Your task to perform on an android device: Go to battery settings Image 0: 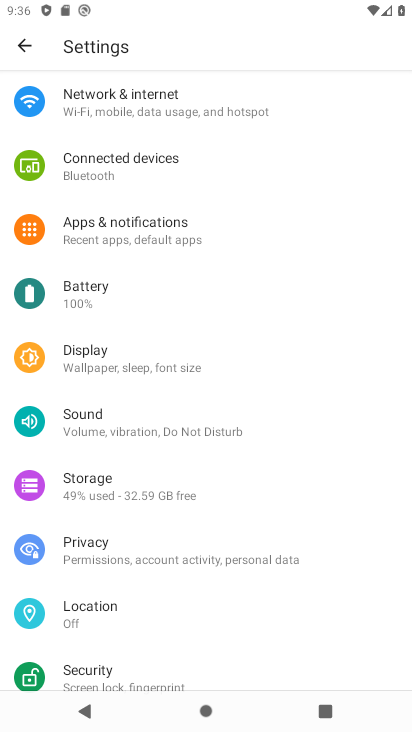
Step 0: click (102, 296)
Your task to perform on an android device: Go to battery settings Image 1: 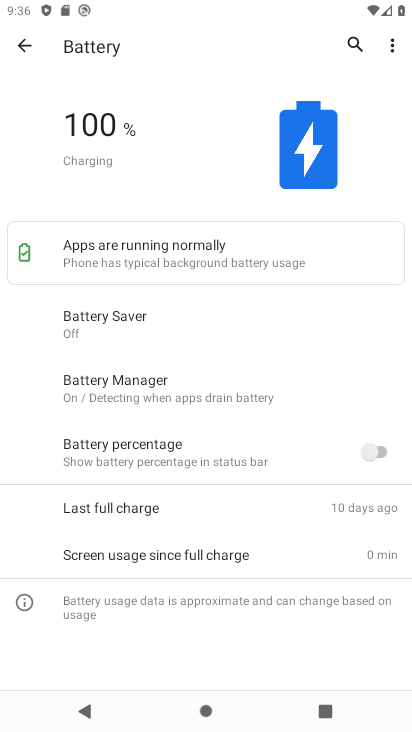
Step 1: task complete